Your task to perform on an android device: turn on notifications settings in the gmail app Image 0: 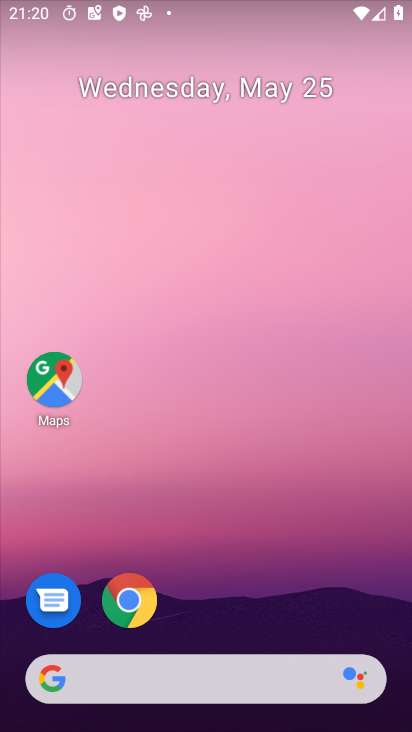
Step 0: drag from (329, 578) to (294, 197)
Your task to perform on an android device: turn on notifications settings in the gmail app Image 1: 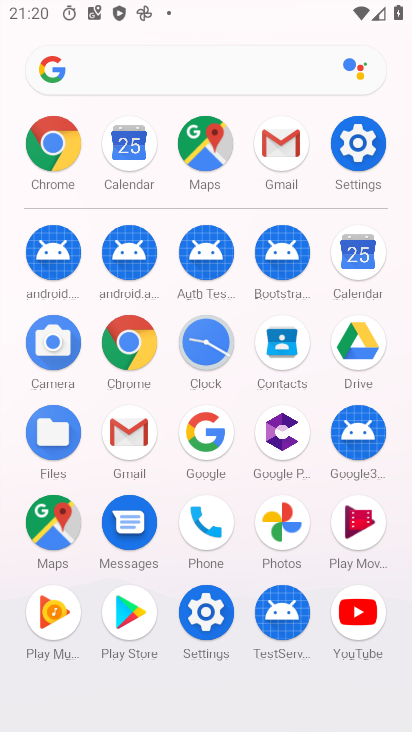
Step 1: click (124, 437)
Your task to perform on an android device: turn on notifications settings in the gmail app Image 2: 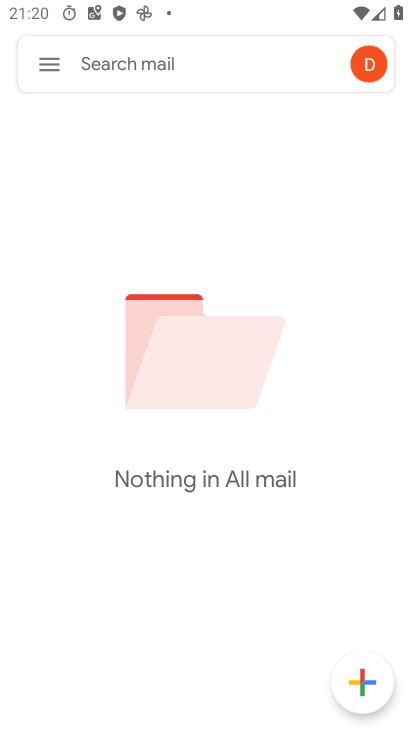
Step 2: click (55, 71)
Your task to perform on an android device: turn on notifications settings in the gmail app Image 3: 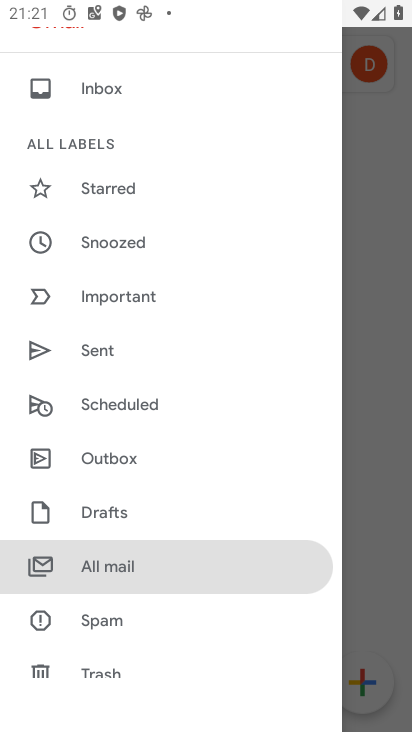
Step 3: drag from (147, 638) to (157, 314)
Your task to perform on an android device: turn on notifications settings in the gmail app Image 4: 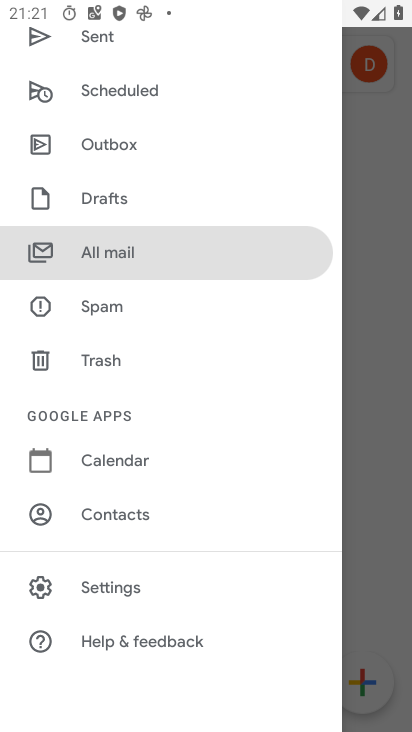
Step 4: click (148, 591)
Your task to perform on an android device: turn on notifications settings in the gmail app Image 5: 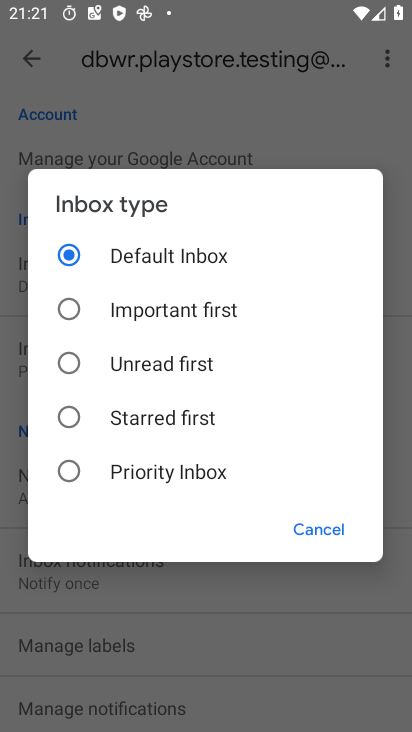
Step 5: click (313, 532)
Your task to perform on an android device: turn on notifications settings in the gmail app Image 6: 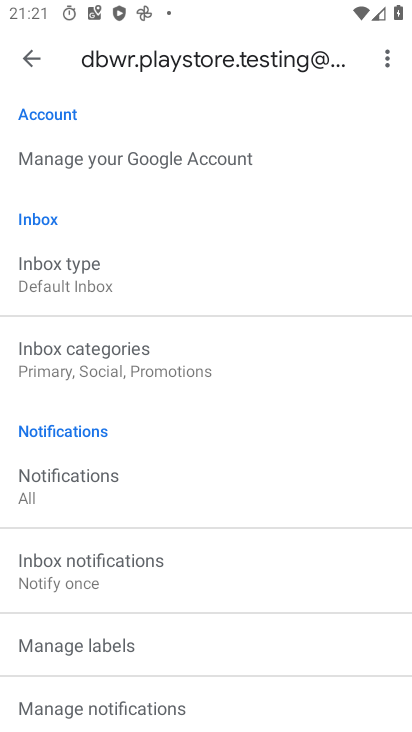
Step 6: click (146, 501)
Your task to perform on an android device: turn on notifications settings in the gmail app Image 7: 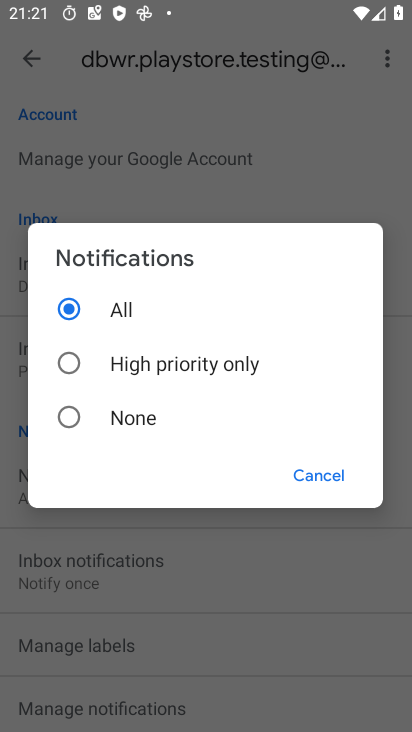
Step 7: task complete